Your task to perform on an android device: change keyboard looks Image 0: 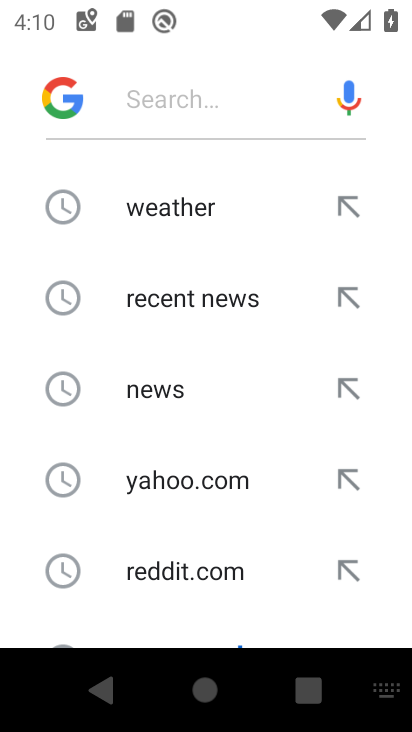
Step 0: press home button
Your task to perform on an android device: change keyboard looks Image 1: 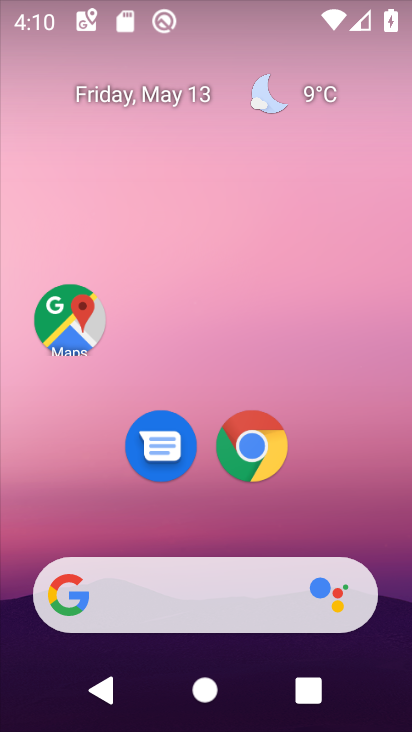
Step 1: drag from (217, 518) to (292, 16)
Your task to perform on an android device: change keyboard looks Image 2: 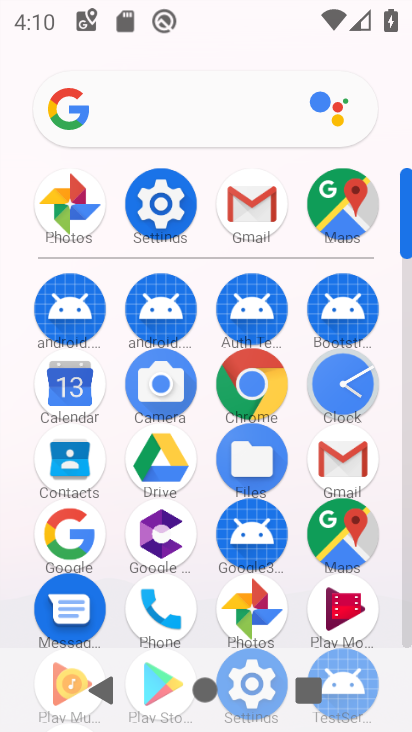
Step 2: click (173, 206)
Your task to perform on an android device: change keyboard looks Image 3: 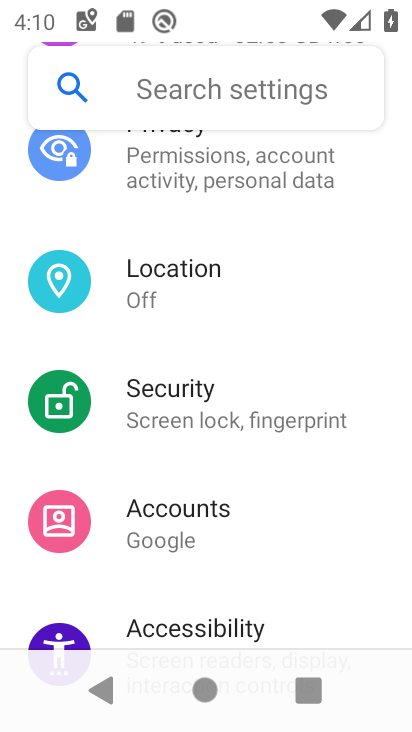
Step 3: drag from (249, 547) to (282, 179)
Your task to perform on an android device: change keyboard looks Image 4: 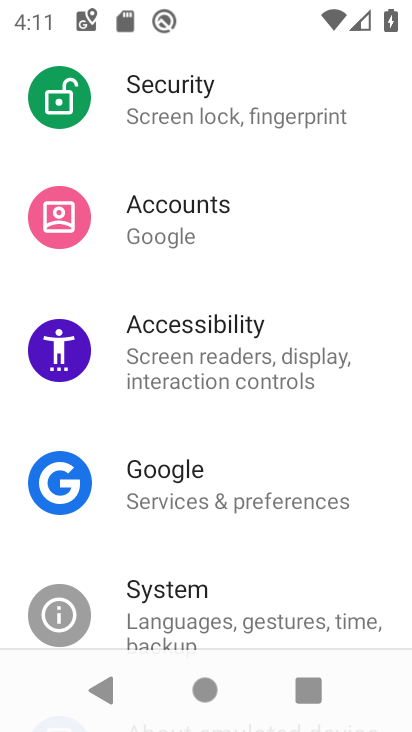
Step 4: click (139, 623)
Your task to perform on an android device: change keyboard looks Image 5: 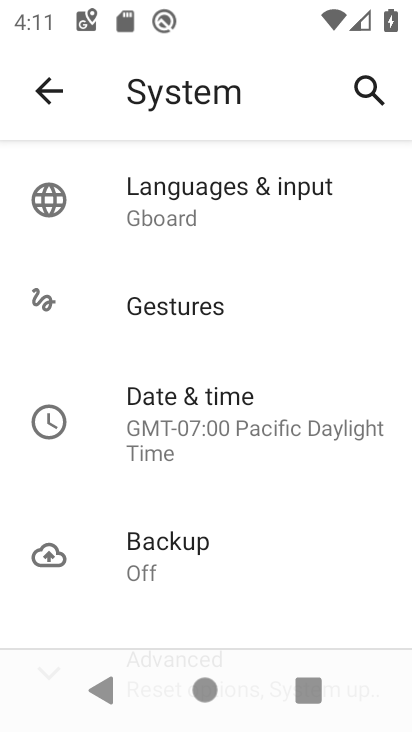
Step 5: click (184, 217)
Your task to perform on an android device: change keyboard looks Image 6: 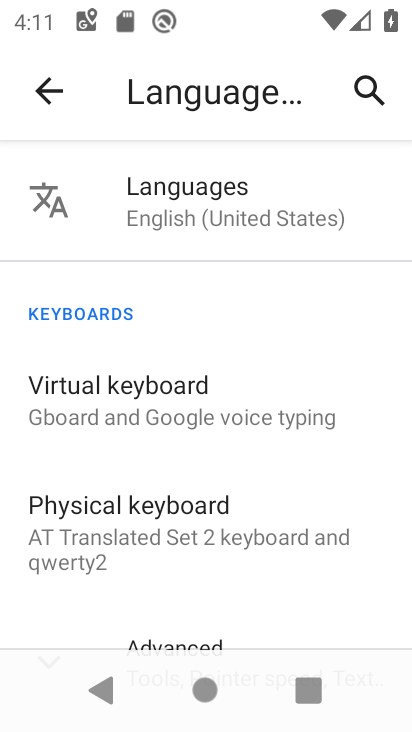
Step 6: click (115, 397)
Your task to perform on an android device: change keyboard looks Image 7: 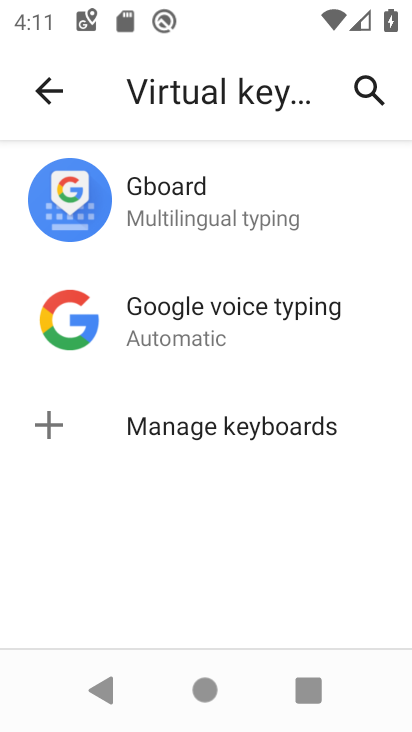
Step 7: click (243, 203)
Your task to perform on an android device: change keyboard looks Image 8: 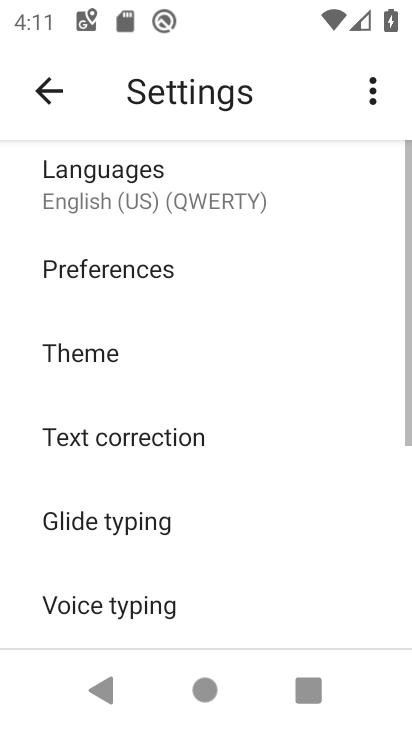
Step 8: click (166, 351)
Your task to perform on an android device: change keyboard looks Image 9: 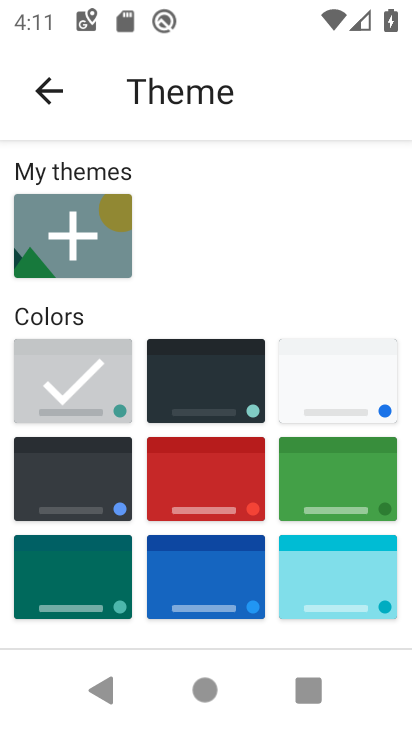
Step 9: click (157, 536)
Your task to perform on an android device: change keyboard looks Image 10: 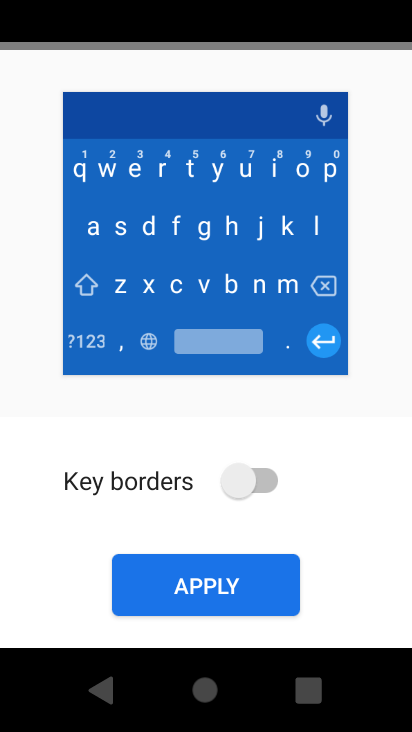
Step 10: click (229, 587)
Your task to perform on an android device: change keyboard looks Image 11: 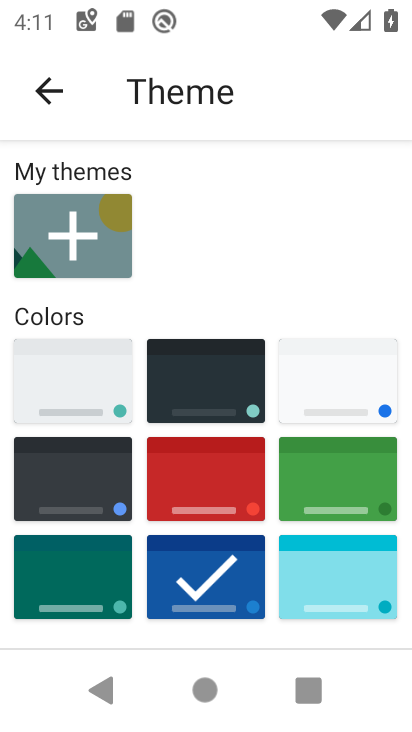
Step 11: task complete